Your task to perform on an android device: toggle notifications settings in the gmail app Image 0: 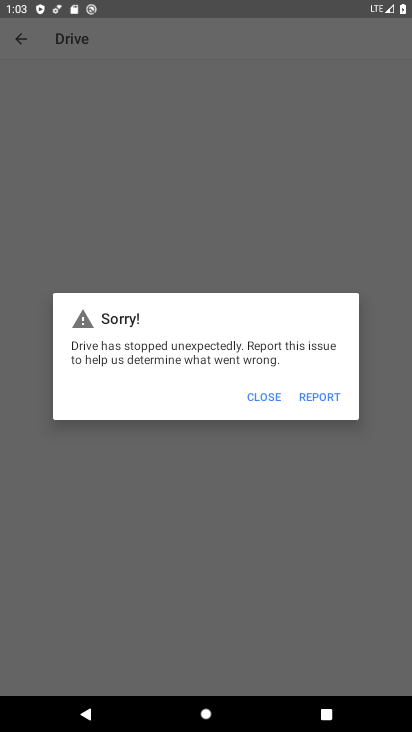
Step 0: press home button
Your task to perform on an android device: toggle notifications settings in the gmail app Image 1: 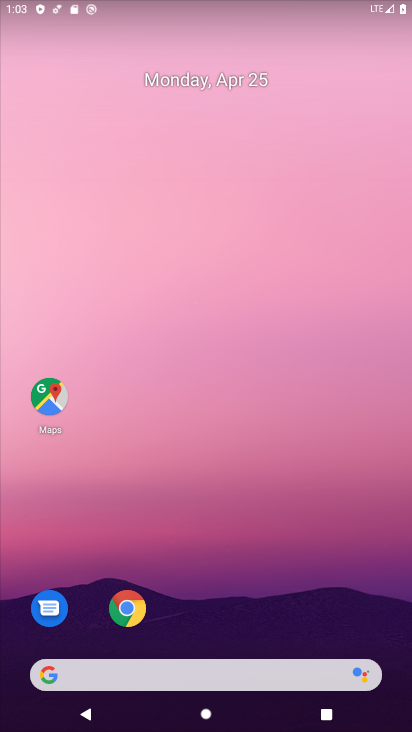
Step 1: drag from (218, 649) to (247, 224)
Your task to perform on an android device: toggle notifications settings in the gmail app Image 2: 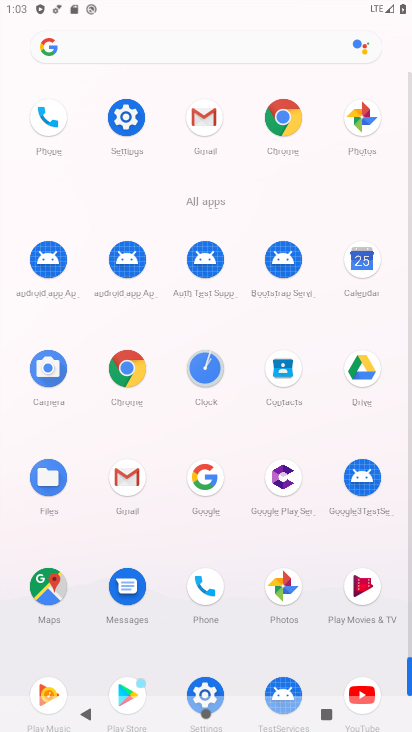
Step 2: click (208, 129)
Your task to perform on an android device: toggle notifications settings in the gmail app Image 3: 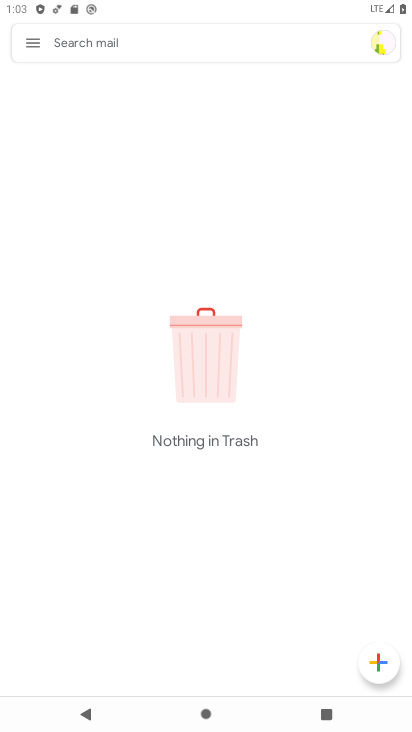
Step 3: click (34, 44)
Your task to perform on an android device: toggle notifications settings in the gmail app Image 4: 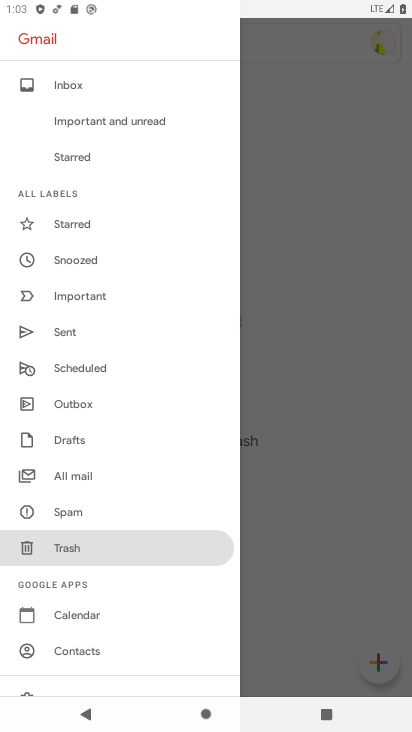
Step 4: drag from (69, 647) to (159, 186)
Your task to perform on an android device: toggle notifications settings in the gmail app Image 5: 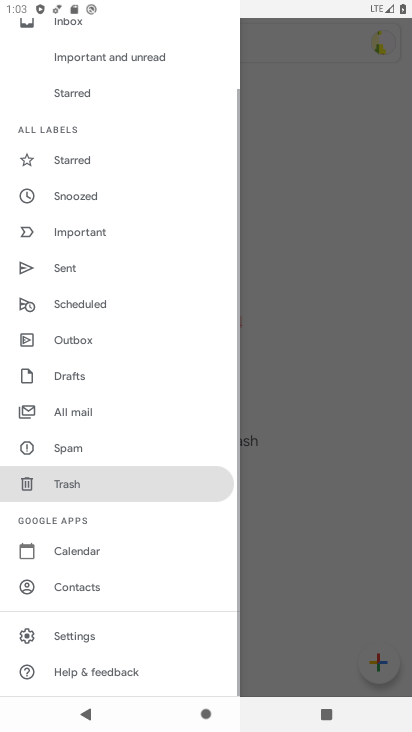
Step 5: click (69, 622)
Your task to perform on an android device: toggle notifications settings in the gmail app Image 6: 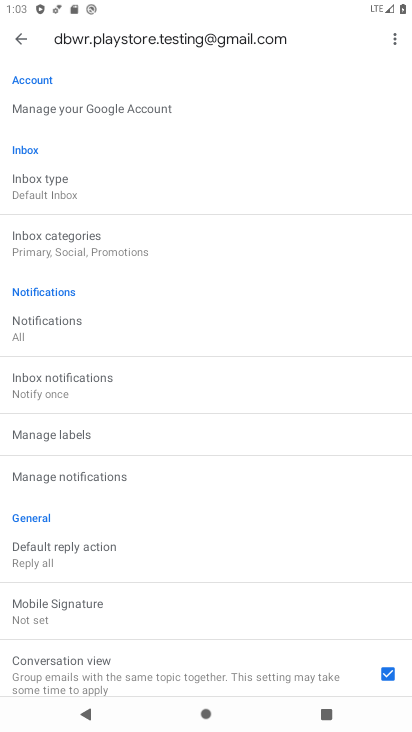
Step 6: click (125, 334)
Your task to perform on an android device: toggle notifications settings in the gmail app Image 7: 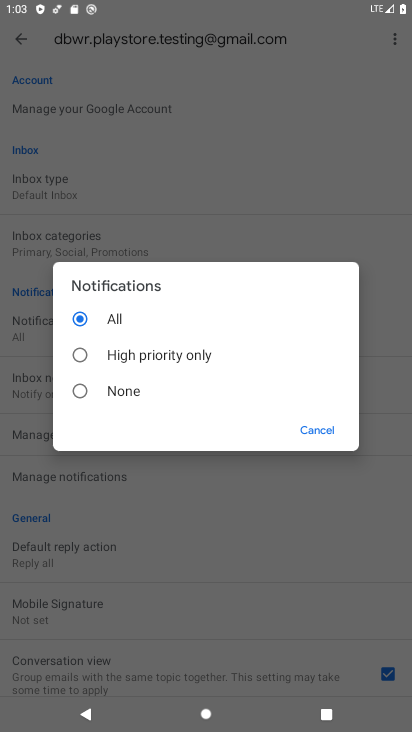
Step 7: click (163, 356)
Your task to perform on an android device: toggle notifications settings in the gmail app Image 8: 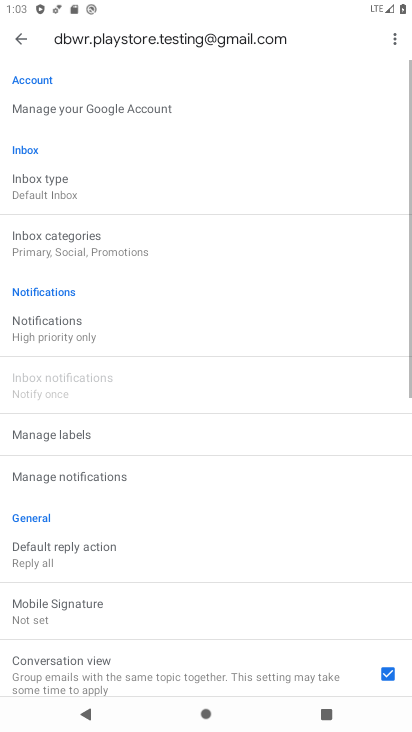
Step 8: task complete